Your task to perform on an android device: Open Reddit.com Image 0: 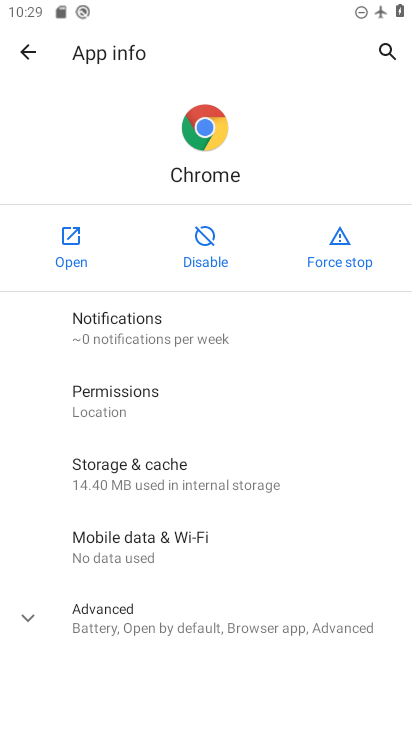
Step 0: click (50, 252)
Your task to perform on an android device: Open Reddit.com Image 1: 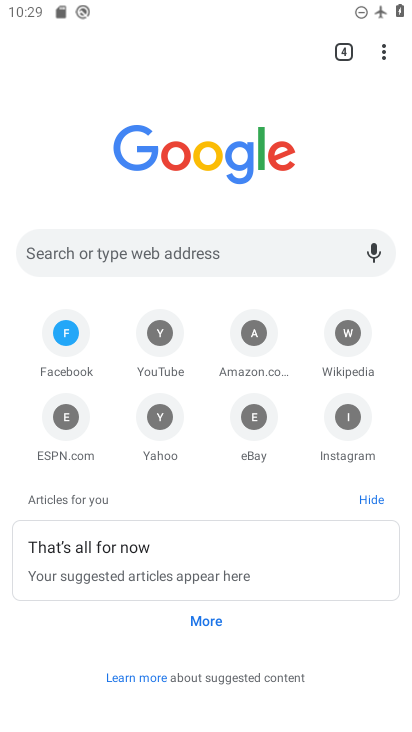
Step 1: click (147, 251)
Your task to perform on an android device: Open Reddit.com Image 2: 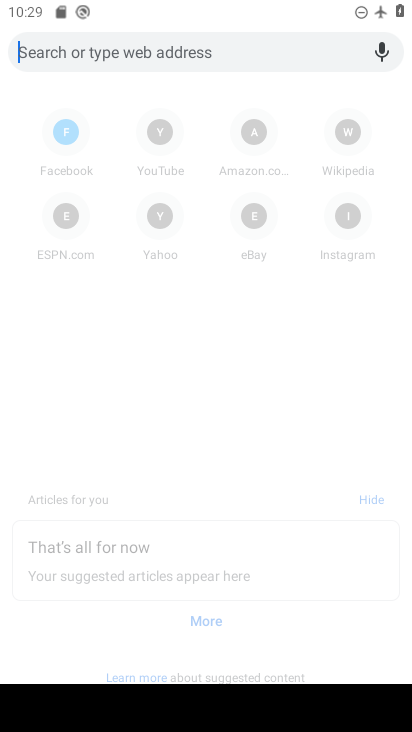
Step 2: type "reddit.com"
Your task to perform on an android device: Open Reddit.com Image 3: 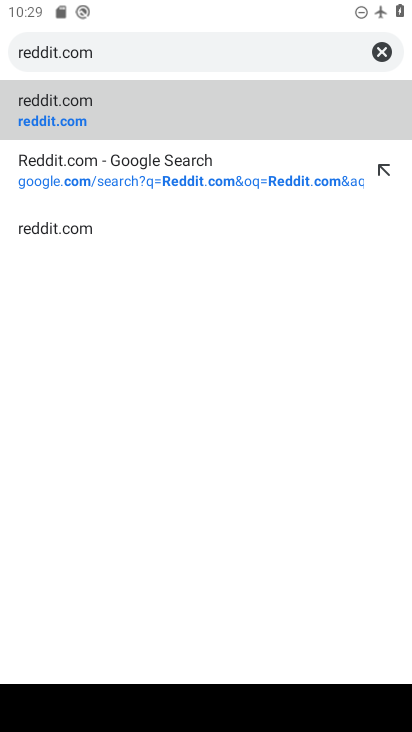
Step 3: click (85, 122)
Your task to perform on an android device: Open Reddit.com Image 4: 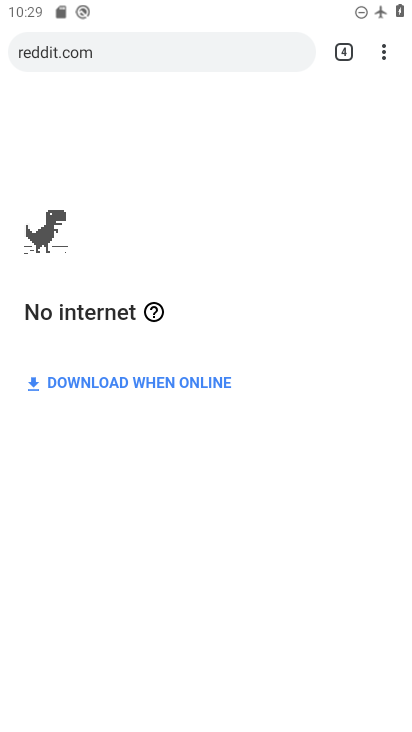
Step 4: task complete